Your task to perform on an android device: toggle location history Image 0: 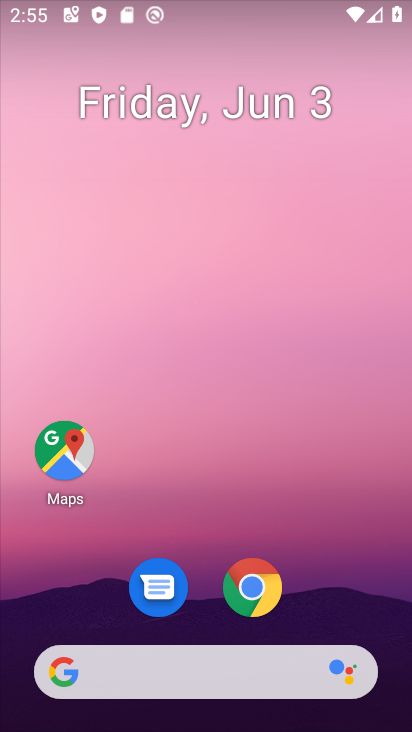
Step 0: drag from (217, 652) to (223, 58)
Your task to perform on an android device: toggle location history Image 1: 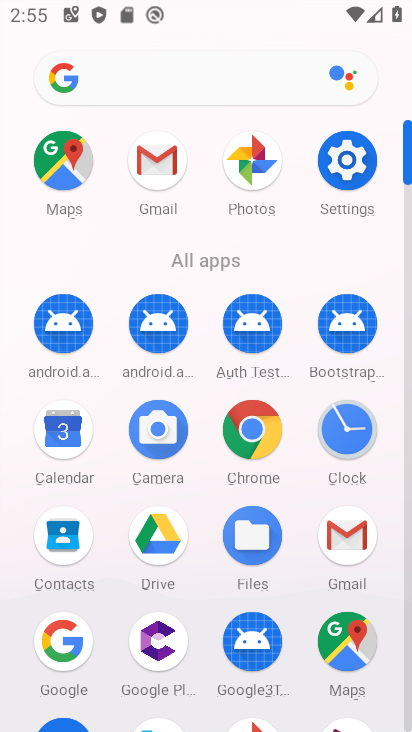
Step 1: click (353, 166)
Your task to perform on an android device: toggle location history Image 2: 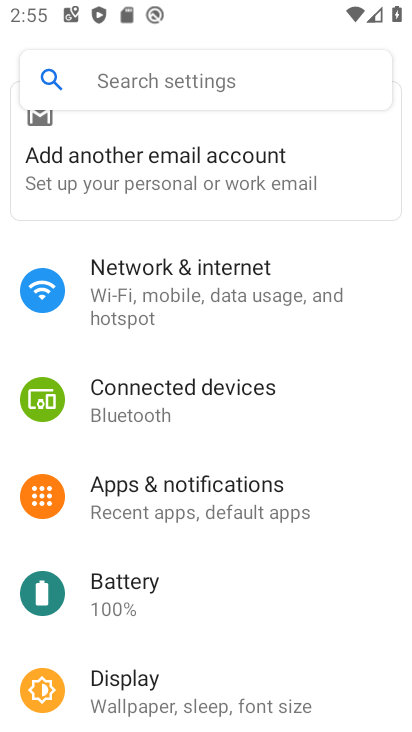
Step 2: drag from (153, 655) to (153, 377)
Your task to perform on an android device: toggle location history Image 3: 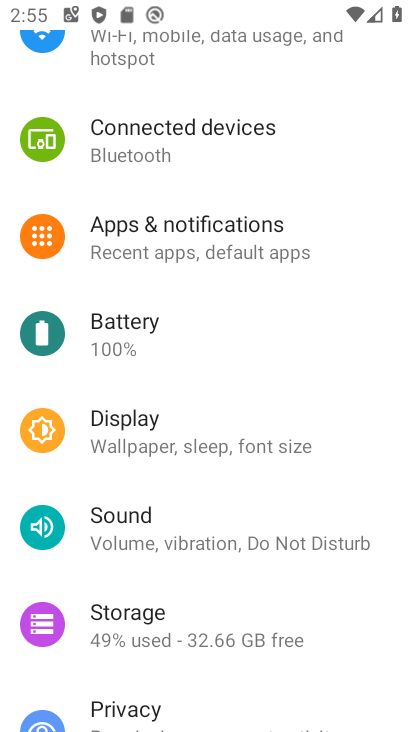
Step 3: drag from (155, 665) to (158, 358)
Your task to perform on an android device: toggle location history Image 4: 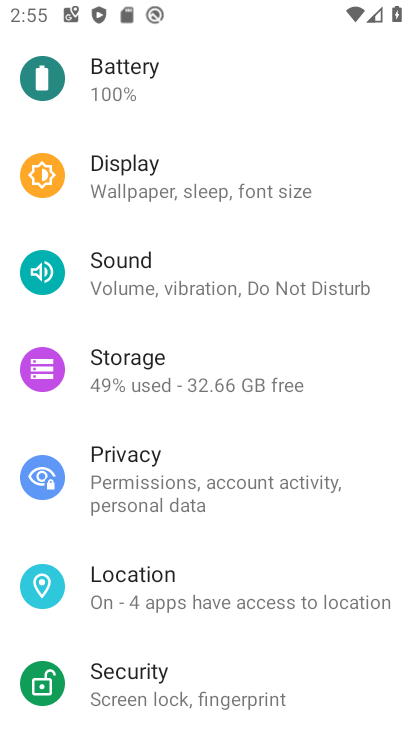
Step 4: click (123, 576)
Your task to perform on an android device: toggle location history Image 5: 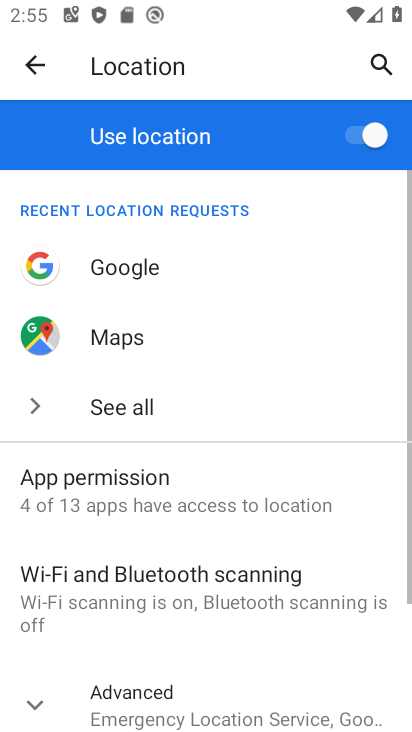
Step 5: drag from (227, 659) to (235, 335)
Your task to perform on an android device: toggle location history Image 6: 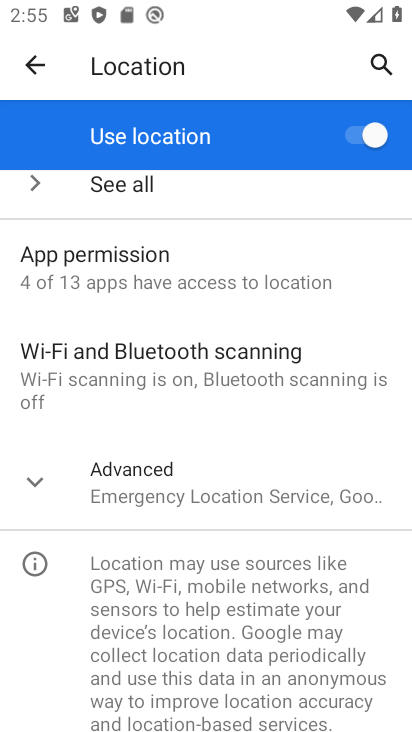
Step 6: click (123, 489)
Your task to perform on an android device: toggle location history Image 7: 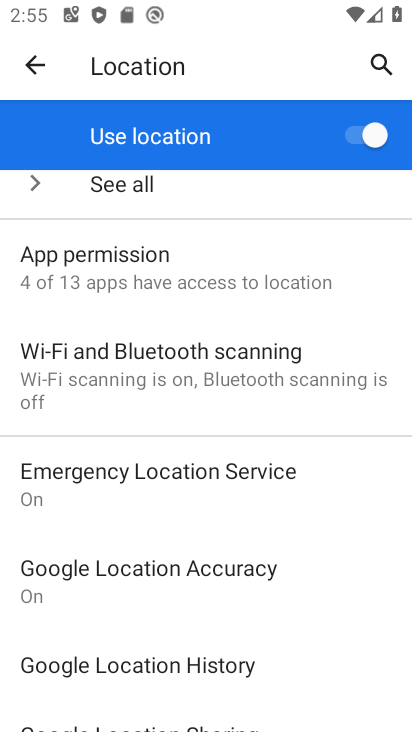
Step 7: click (162, 667)
Your task to perform on an android device: toggle location history Image 8: 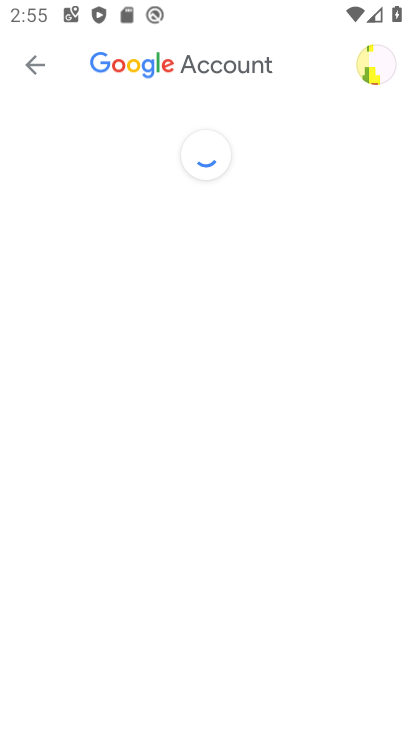
Step 8: drag from (276, 696) to (289, 333)
Your task to perform on an android device: toggle location history Image 9: 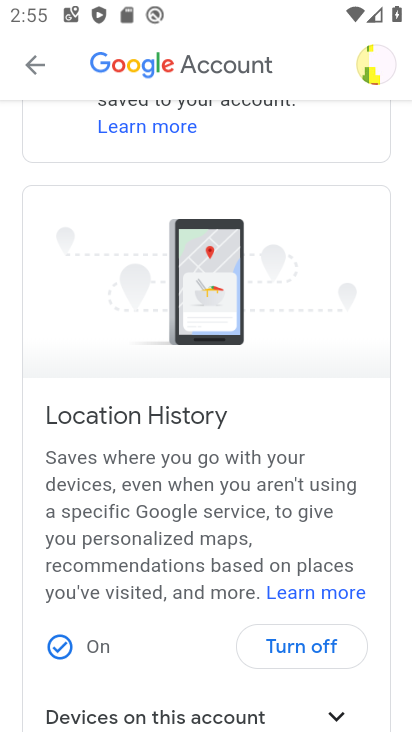
Step 9: click (289, 643)
Your task to perform on an android device: toggle location history Image 10: 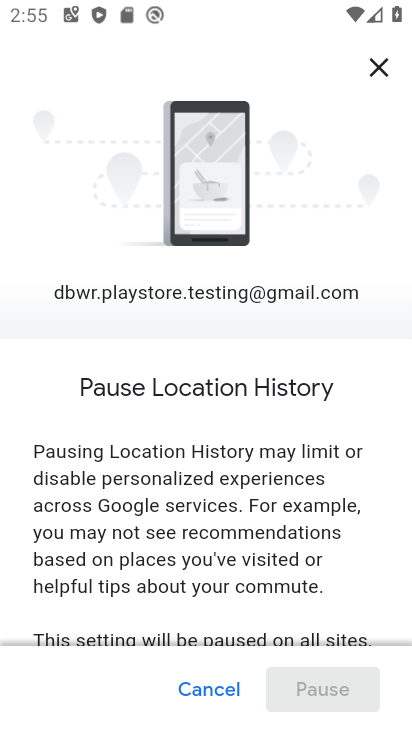
Step 10: drag from (296, 636) to (286, 280)
Your task to perform on an android device: toggle location history Image 11: 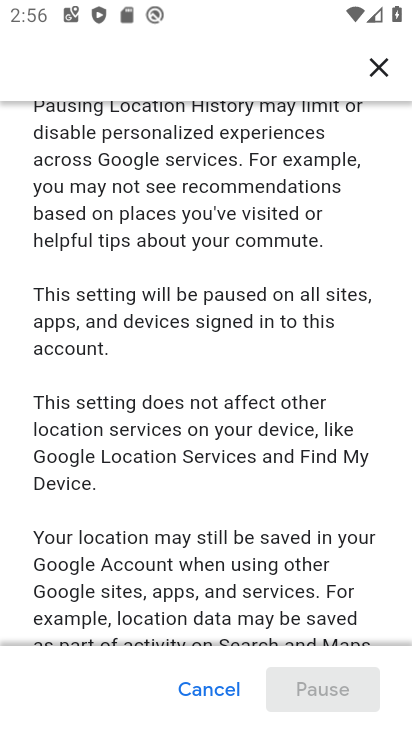
Step 11: drag from (288, 613) to (278, 246)
Your task to perform on an android device: toggle location history Image 12: 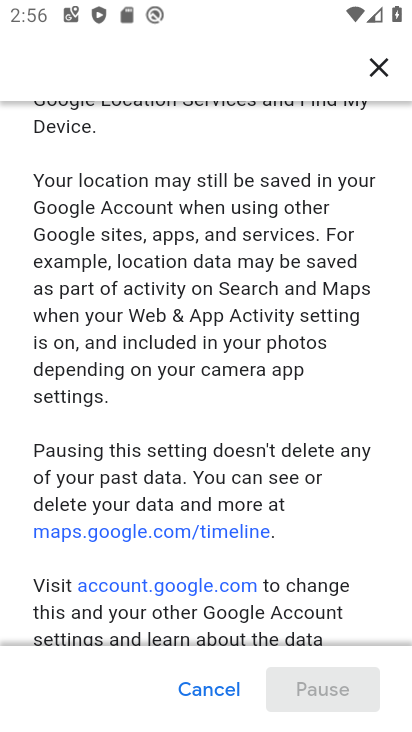
Step 12: drag from (321, 630) to (284, 217)
Your task to perform on an android device: toggle location history Image 13: 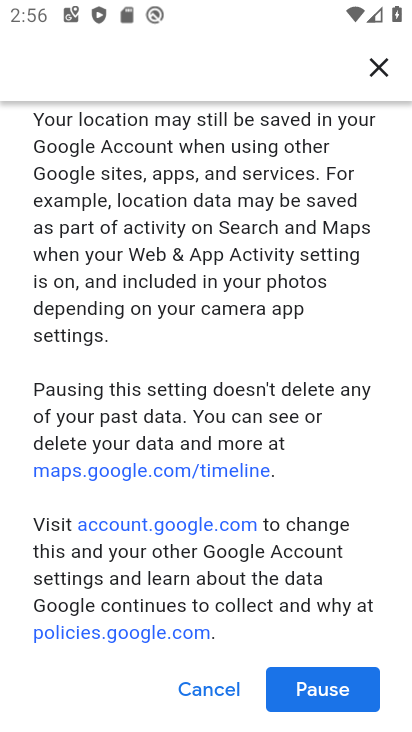
Step 13: click (352, 689)
Your task to perform on an android device: toggle location history Image 14: 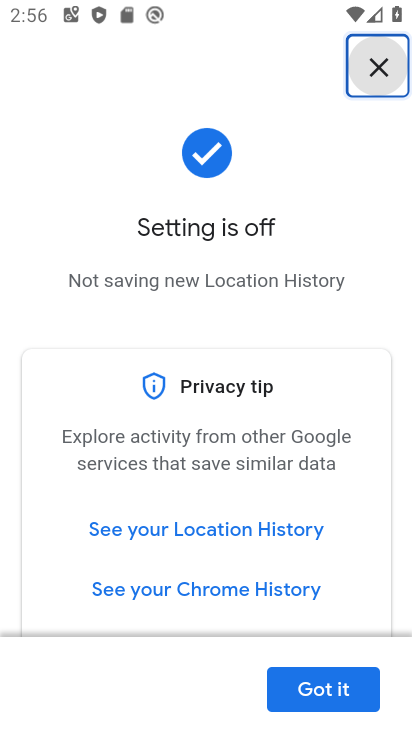
Step 14: task complete